Your task to perform on an android device: Go to notification settings Image 0: 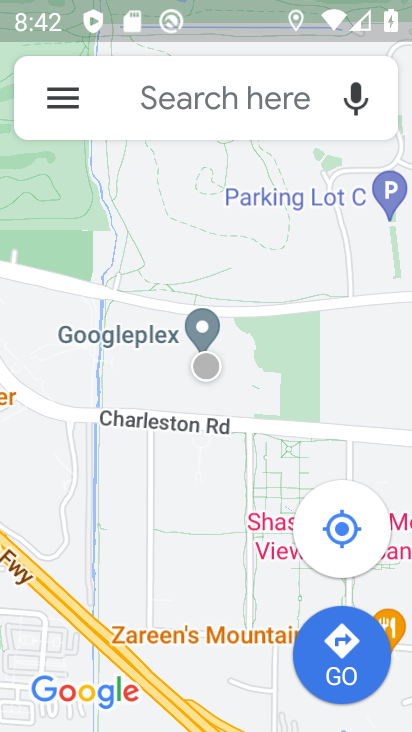
Step 0: drag from (315, 563) to (373, 293)
Your task to perform on an android device: Go to notification settings Image 1: 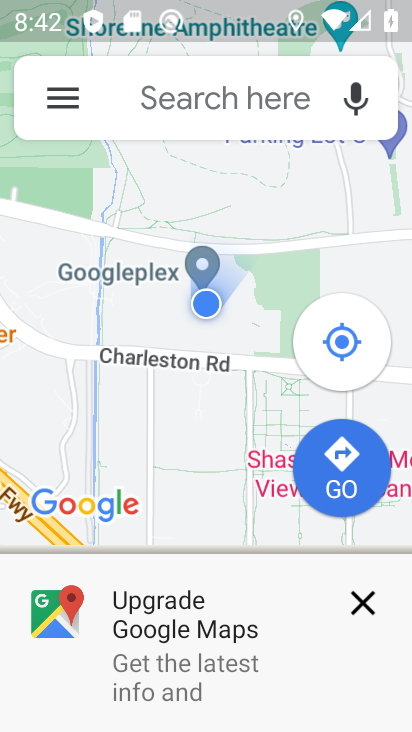
Step 1: press home button
Your task to perform on an android device: Go to notification settings Image 2: 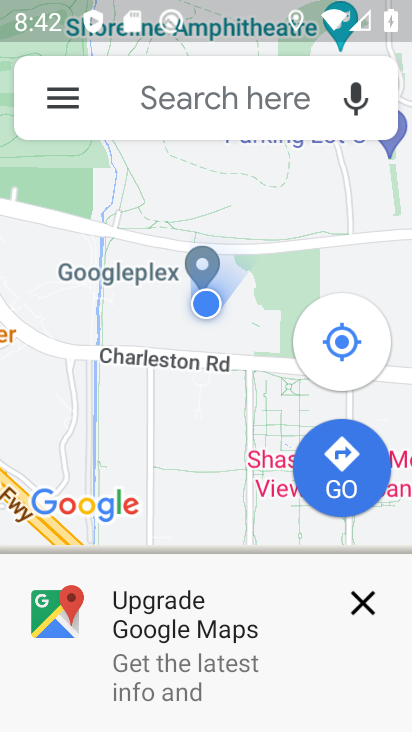
Step 2: click (395, 357)
Your task to perform on an android device: Go to notification settings Image 3: 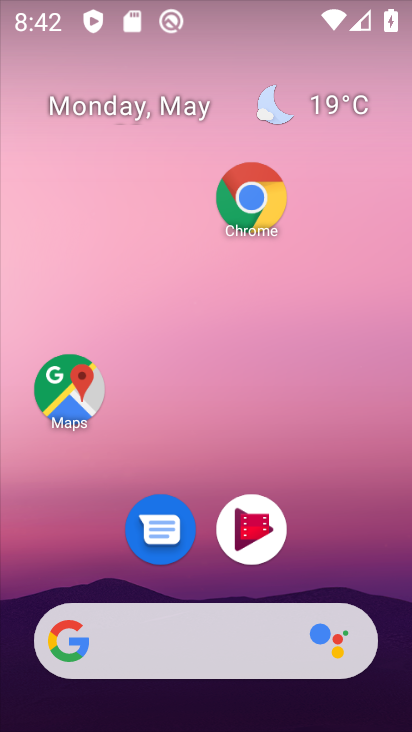
Step 3: drag from (306, 572) to (178, 73)
Your task to perform on an android device: Go to notification settings Image 4: 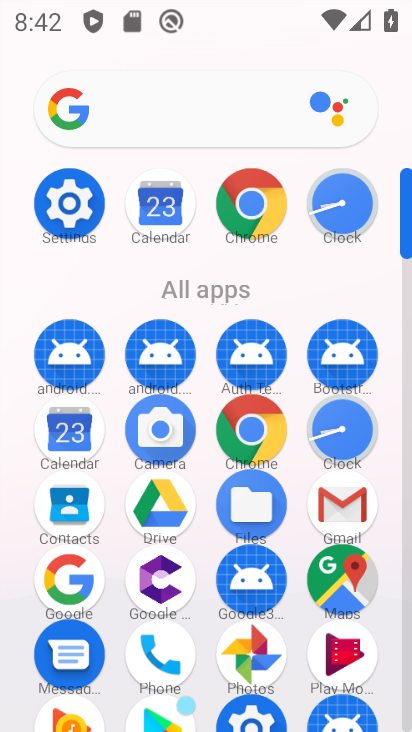
Step 4: click (73, 205)
Your task to perform on an android device: Go to notification settings Image 5: 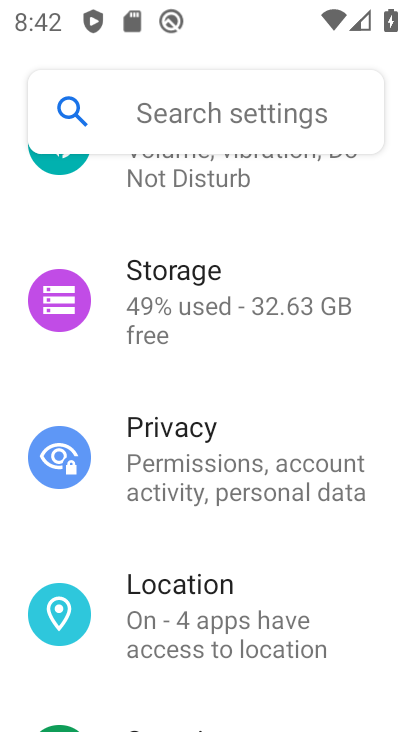
Step 5: drag from (178, 275) to (180, 477)
Your task to perform on an android device: Go to notification settings Image 6: 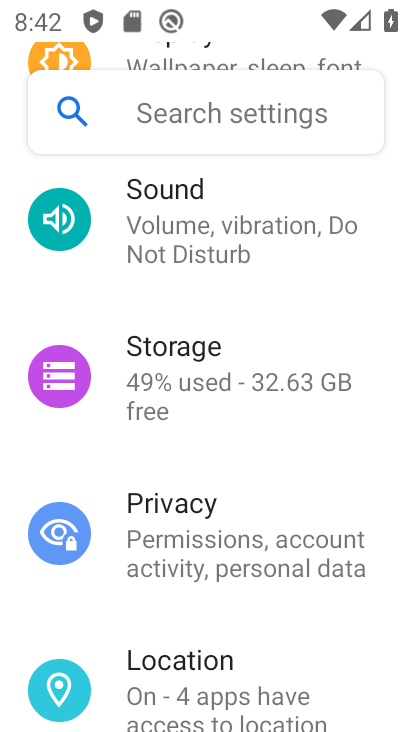
Step 6: drag from (212, 308) to (208, 549)
Your task to perform on an android device: Go to notification settings Image 7: 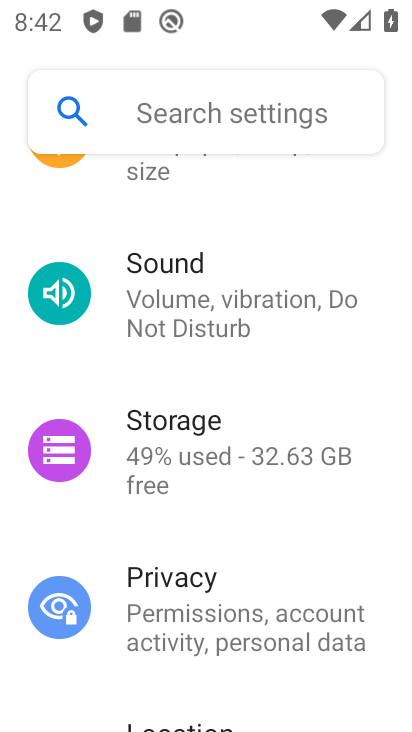
Step 7: drag from (201, 279) to (187, 529)
Your task to perform on an android device: Go to notification settings Image 8: 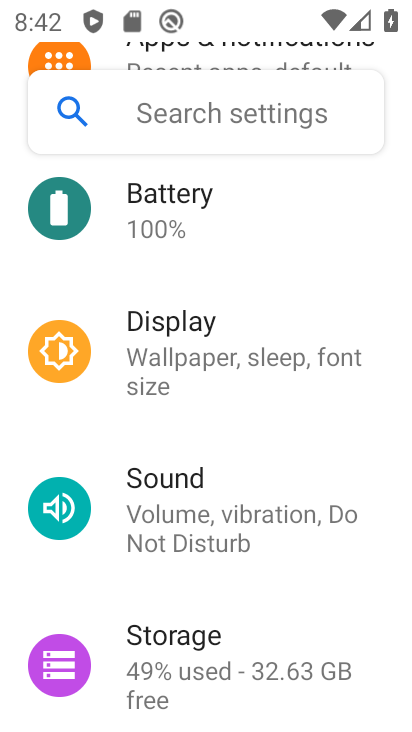
Step 8: drag from (202, 228) to (198, 523)
Your task to perform on an android device: Go to notification settings Image 9: 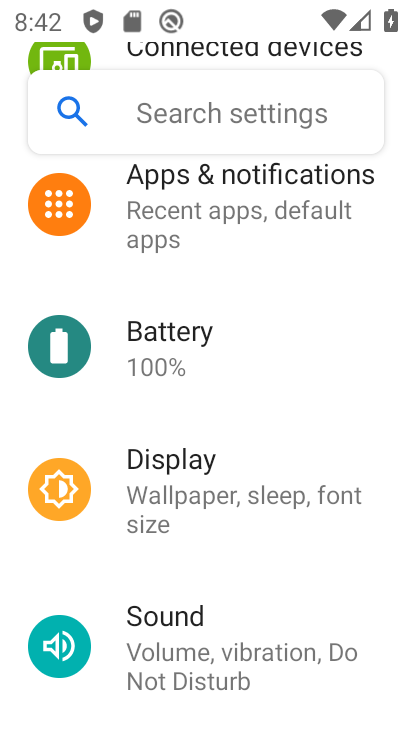
Step 9: drag from (198, 236) to (198, 484)
Your task to perform on an android device: Go to notification settings Image 10: 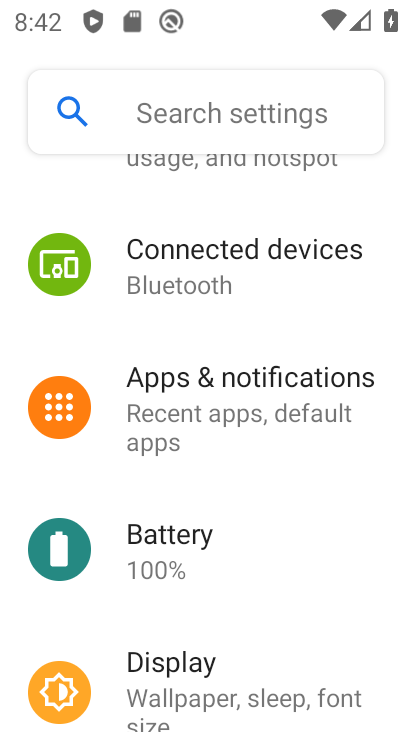
Step 10: drag from (203, 340) to (204, 502)
Your task to perform on an android device: Go to notification settings Image 11: 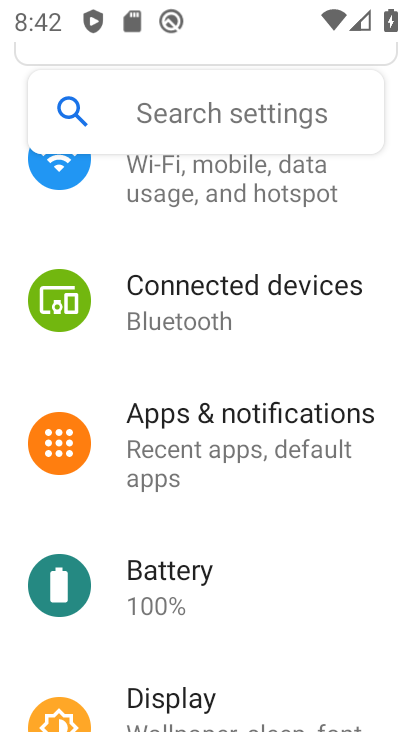
Step 11: drag from (226, 474) to (228, 566)
Your task to perform on an android device: Go to notification settings Image 12: 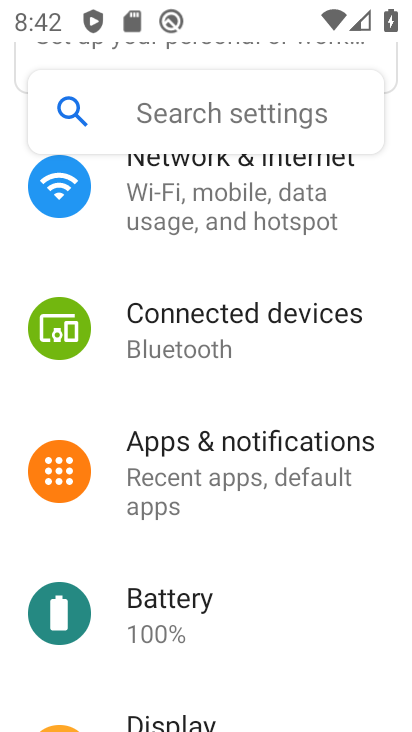
Step 12: click (208, 477)
Your task to perform on an android device: Go to notification settings Image 13: 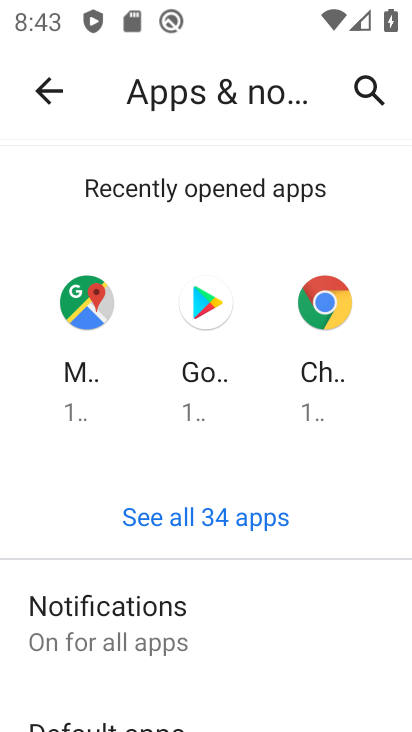
Step 13: click (89, 647)
Your task to perform on an android device: Go to notification settings Image 14: 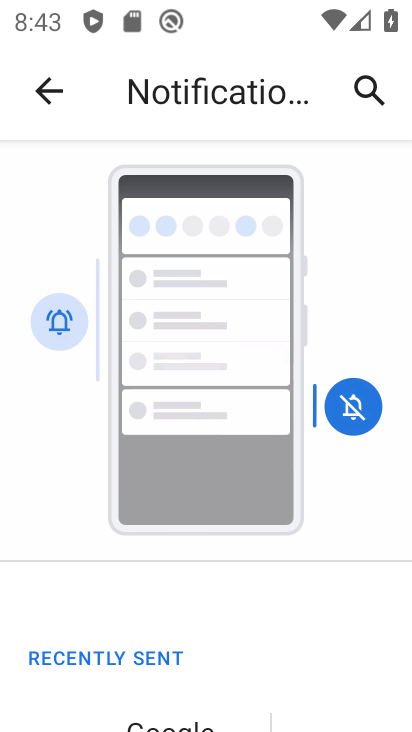
Step 14: task complete